Your task to perform on an android device: turn on improve location accuracy Image 0: 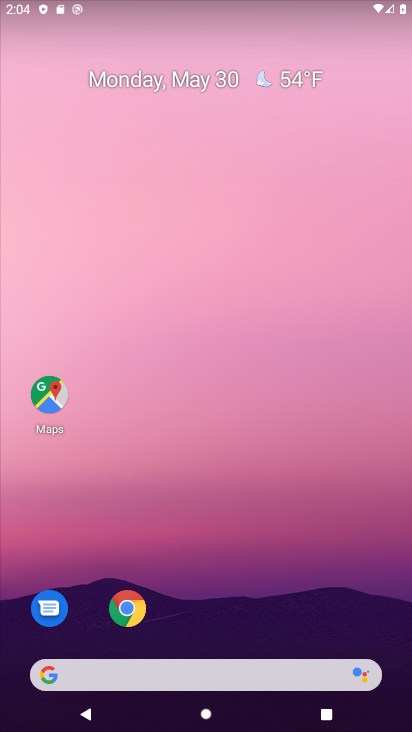
Step 0: drag from (311, 626) to (240, 2)
Your task to perform on an android device: turn on improve location accuracy Image 1: 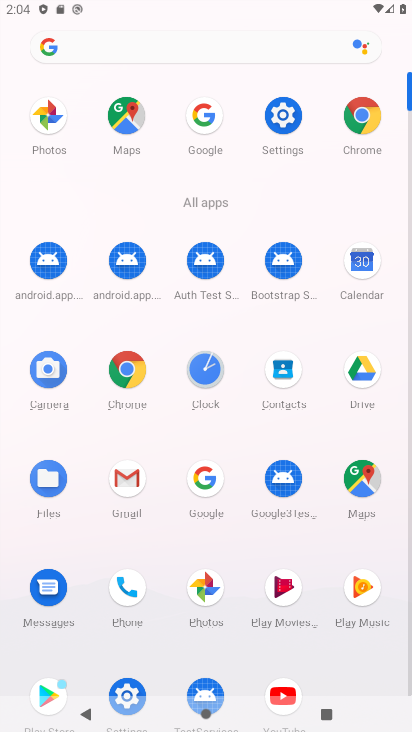
Step 1: click (287, 120)
Your task to perform on an android device: turn on improve location accuracy Image 2: 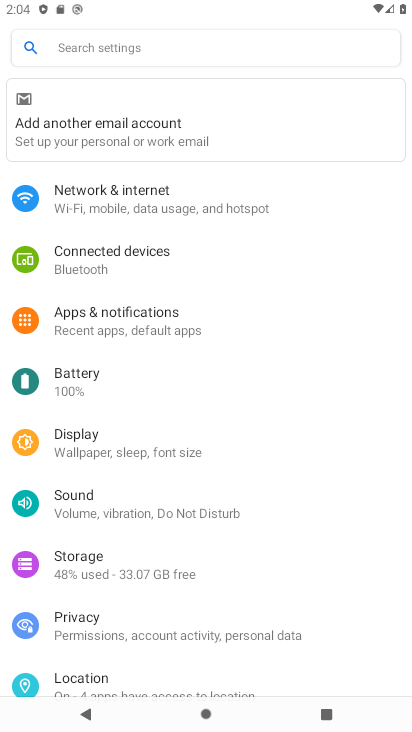
Step 2: drag from (231, 609) to (252, 53)
Your task to perform on an android device: turn on improve location accuracy Image 3: 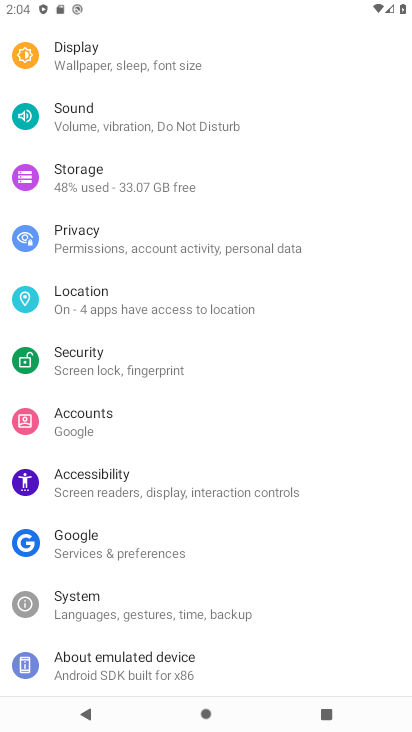
Step 3: click (139, 311)
Your task to perform on an android device: turn on improve location accuracy Image 4: 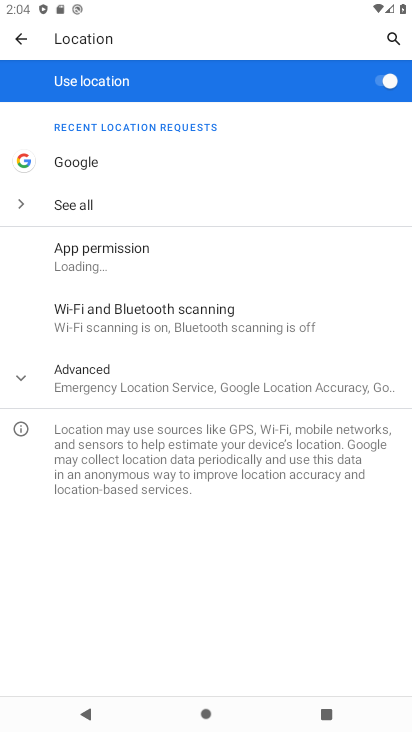
Step 4: click (188, 377)
Your task to perform on an android device: turn on improve location accuracy Image 5: 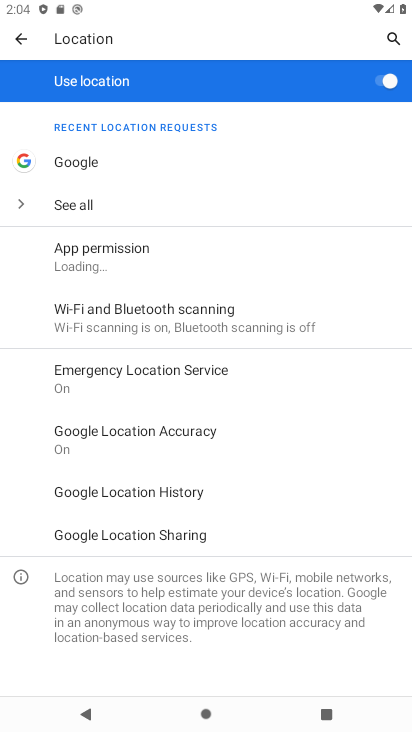
Step 5: click (194, 414)
Your task to perform on an android device: turn on improve location accuracy Image 6: 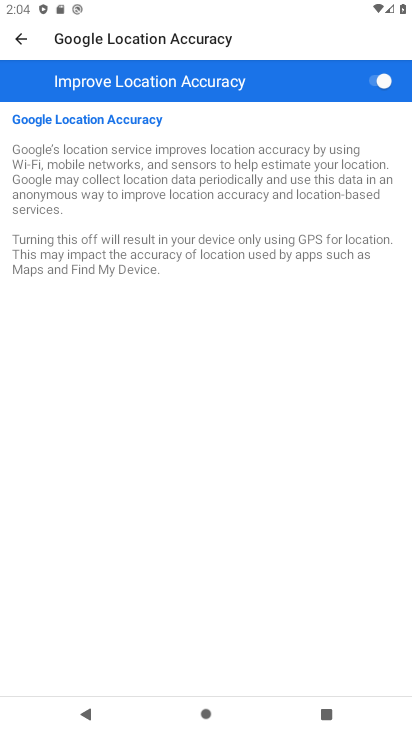
Step 6: task complete